Your task to perform on an android device: clear all cookies in the chrome app Image 0: 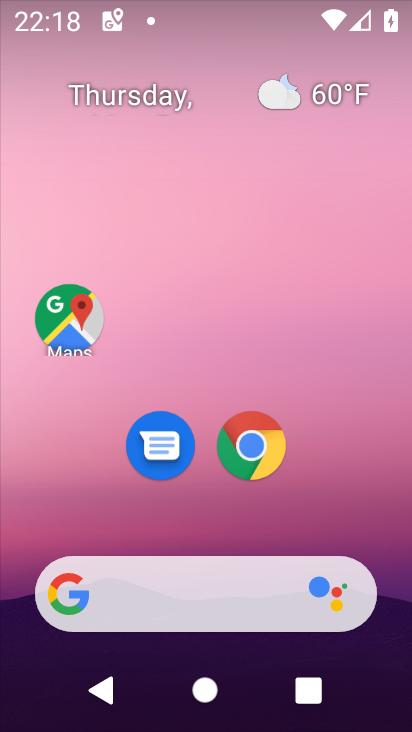
Step 0: click (236, 464)
Your task to perform on an android device: clear all cookies in the chrome app Image 1: 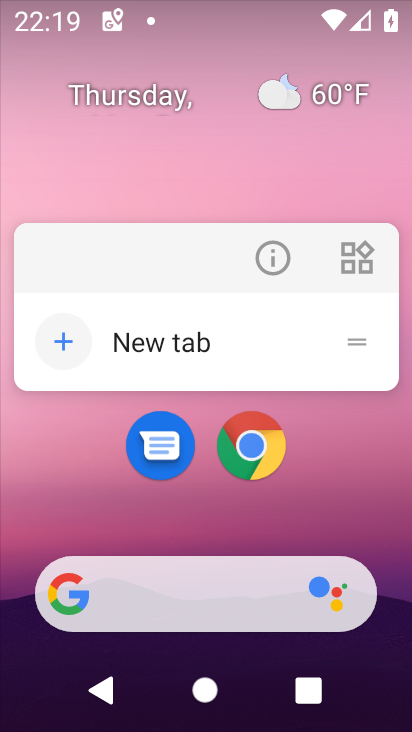
Step 1: click (239, 455)
Your task to perform on an android device: clear all cookies in the chrome app Image 2: 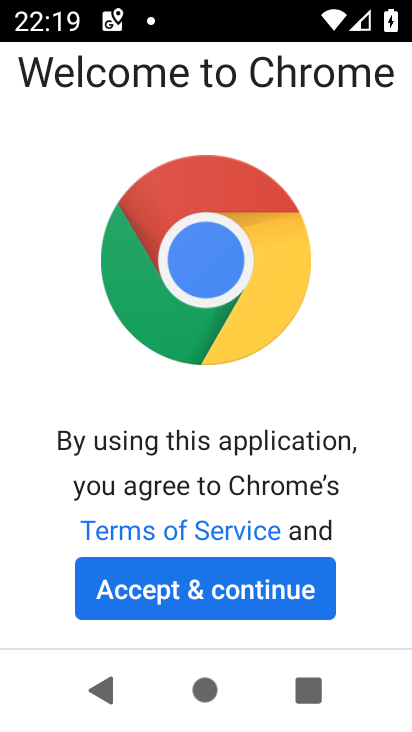
Step 2: click (269, 602)
Your task to perform on an android device: clear all cookies in the chrome app Image 3: 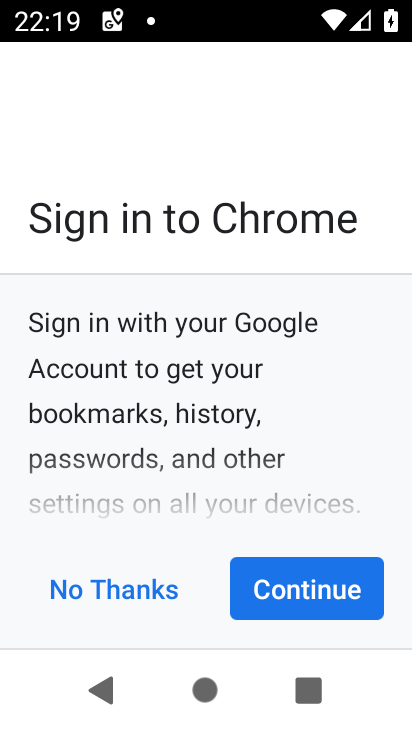
Step 3: click (301, 592)
Your task to perform on an android device: clear all cookies in the chrome app Image 4: 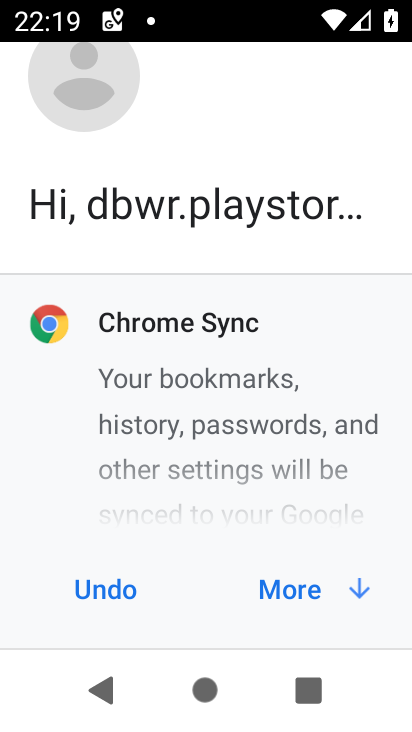
Step 4: click (301, 592)
Your task to perform on an android device: clear all cookies in the chrome app Image 5: 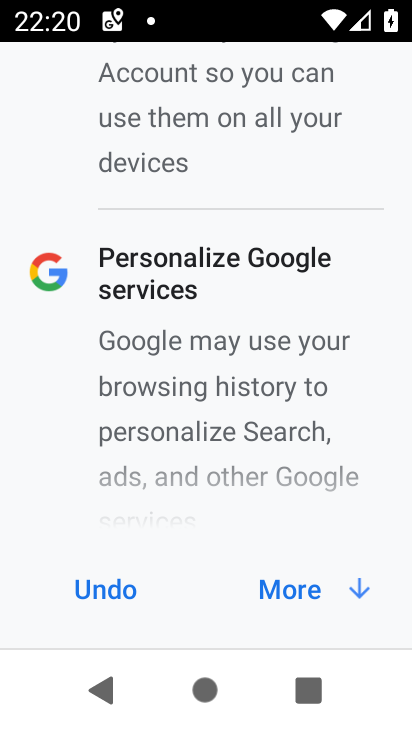
Step 5: click (301, 592)
Your task to perform on an android device: clear all cookies in the chrome app Image 6: 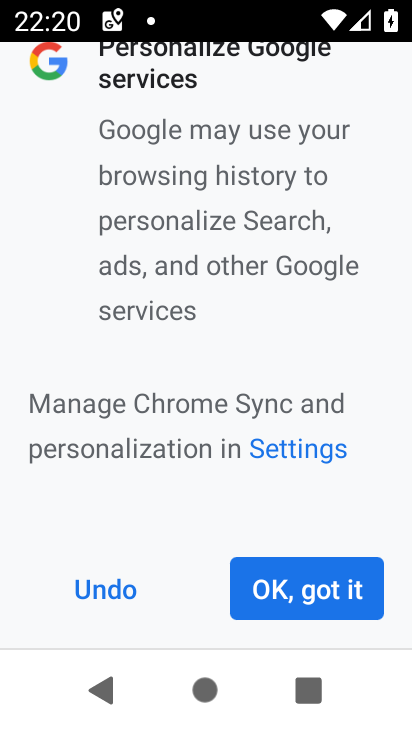
Step 6: click (301, 592)
Your task to perform on an android device: clear all cookies in the chrome app Image 7: 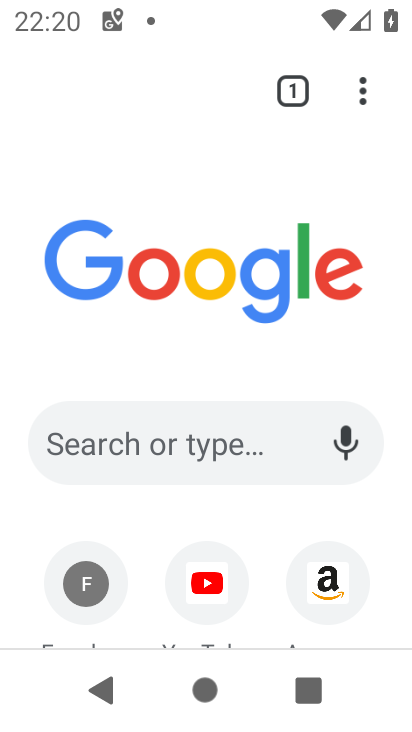
Step 7: drag from (362, 85) to (105, 219)
Your task to perform on an android device: clear all cookies in the chrome app Image 8: 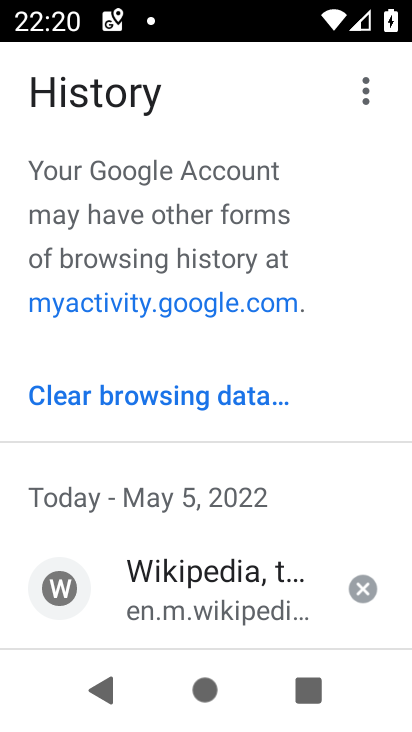
Step 8: click (130, 399)
Your task to perform on an android device: clear all cookies in the chrome app Image 9: 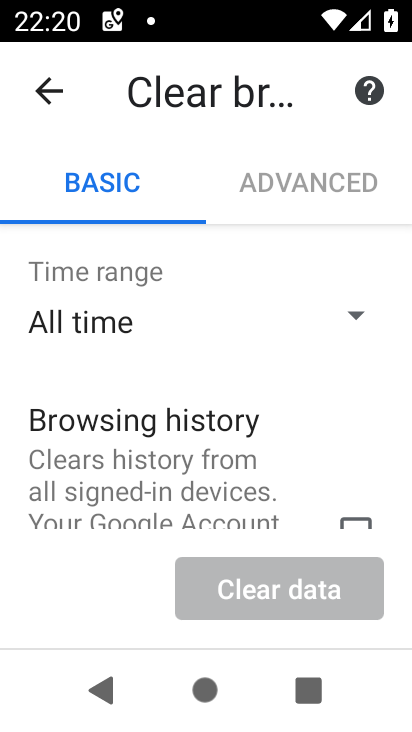
Step 9: drag from (267, 449) to (189, 73)
Your task to perform on an android device: clear all cookies in the chrome app Image 10: 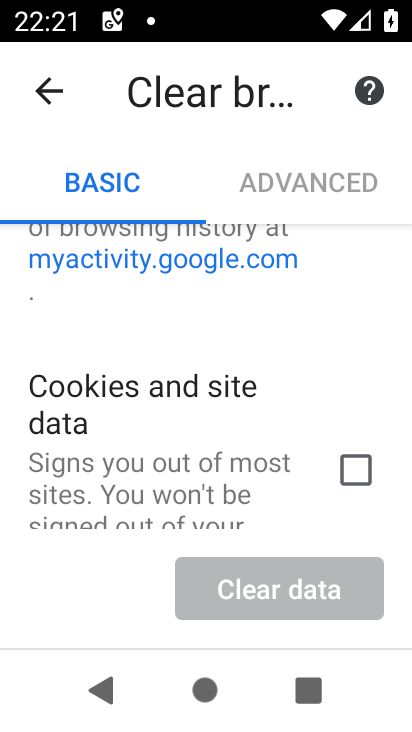
Step 10: click (362, 470)
Your task to perform on an android device: clear all cookies in the chrome app Image 11: 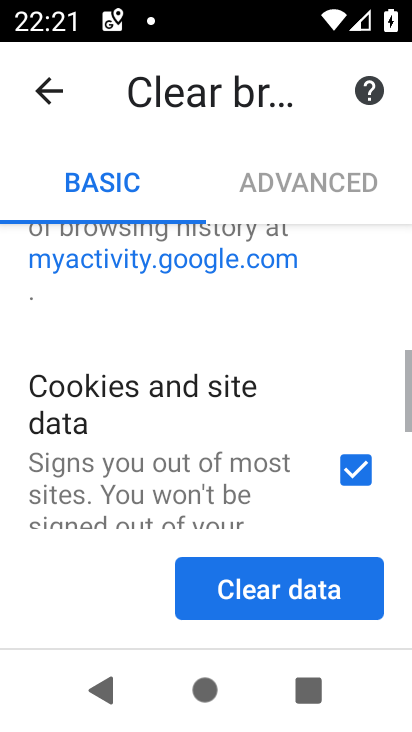
Step 11: click (344, 583)
Your task to perform on an android device: clear all cookies in the chrome app Image 12: 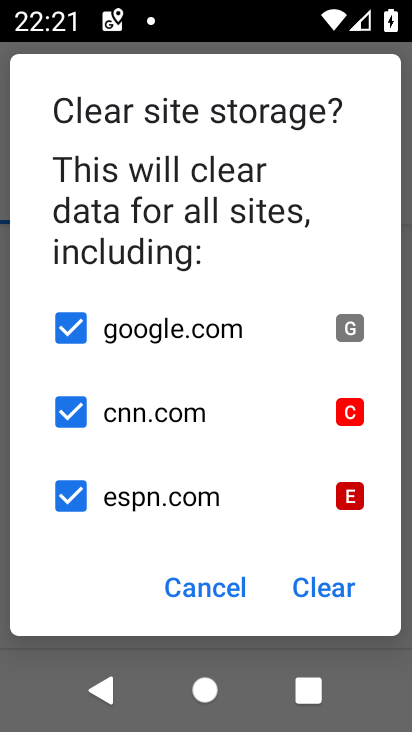
Step 12: click (324, 584)
Your task to perform on an android device: clear all cookies in the chrome app Image 13: 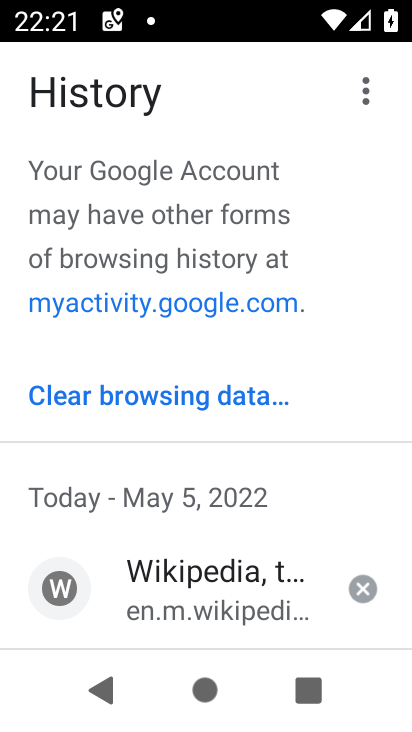
Step 13: task complete